Your task to perform on an android device: Open calendar and show me the fourth week of next month Image 0: 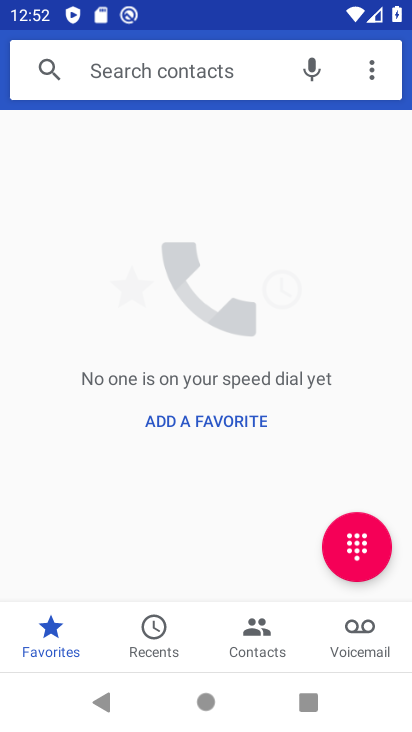
Step 0: press home button
Your task to perform on an android device: Open calendar and show me the fourth week of next month Image 1: 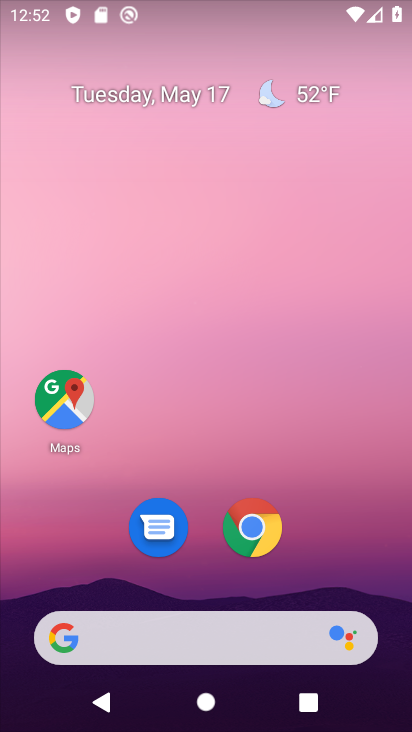
Step 1: drag from (107, 315) to (144, 145)
Your task to perform on an android device: Open calendar and show me the fourth week of next month Image 2: 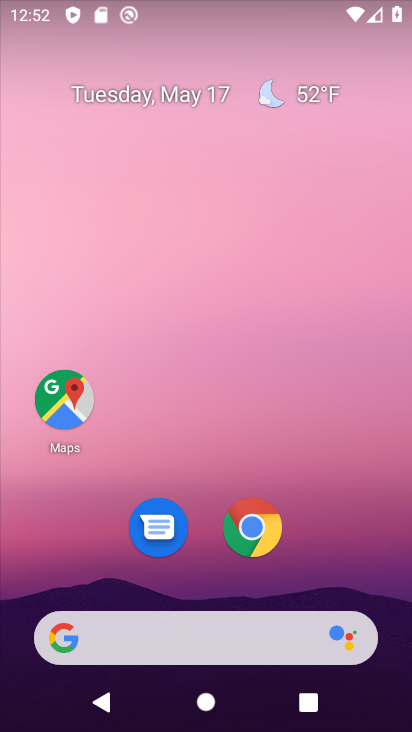
Step 2: drag from (95, 576) to (169, 66)
Your task to perform on an android device: Open calendar and show me the fourth week of next month Image 3: 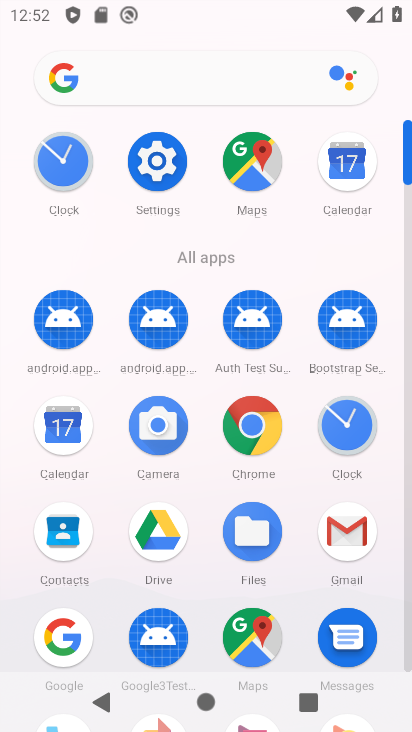
Step 3: drag from (160, 526) to (195, 299)
Your task to perform on an android device: Open calendar and show me the fourth week of next month Image 4: 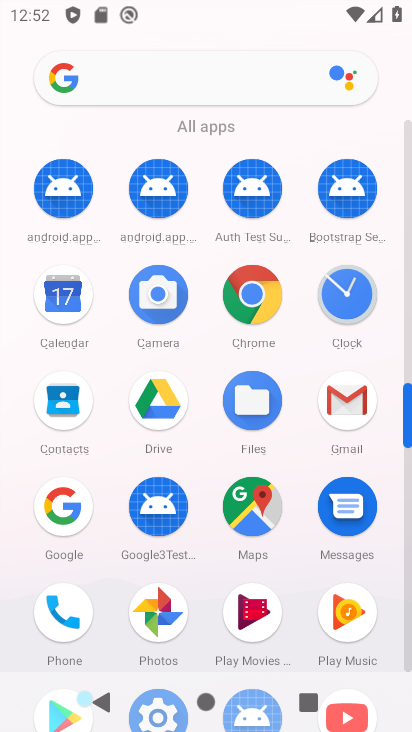
Step 4: click (73, 305)
Your task to perform on an android device: Open calendar and show me the fourth week of next month Image 5: 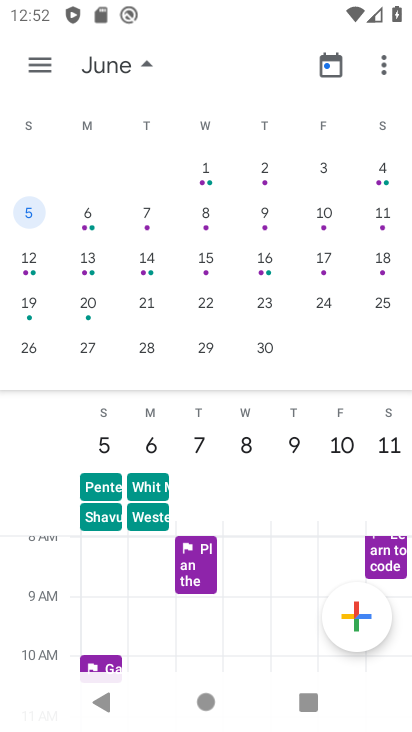
Step 5: click (25, 343)
Your task to perform on an android device: Open calendar and show me the fourth week of next month Image 6: 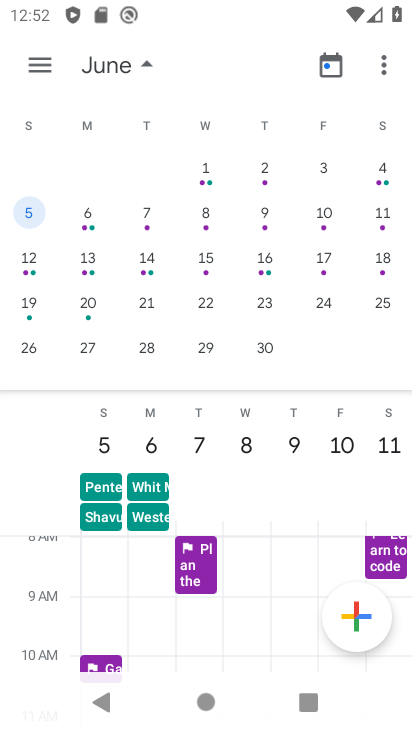
Step 6: click (32, 349)
Your task to perform on an android device: Open calendar and show me the fourth week of next month Image 7: 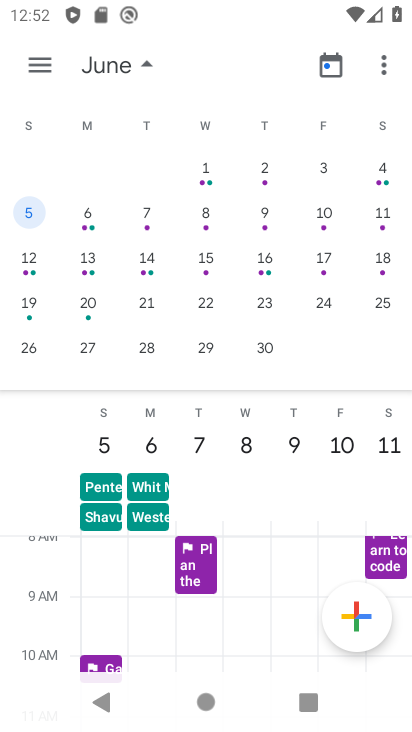
Step 7: click (34, 353)
Your task to perform on an android device: Open calendar and show me the fourth week of next month Image 8: 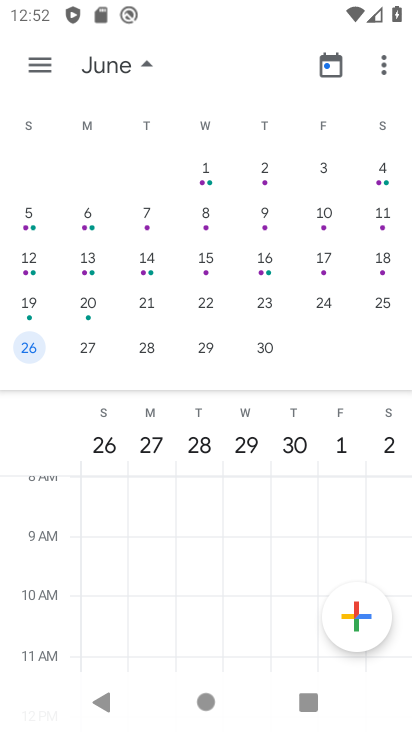
Step 8: click (145, 70)
Your task to perform on an android device: Open calendar and show me the fourth week of next month Image 9: 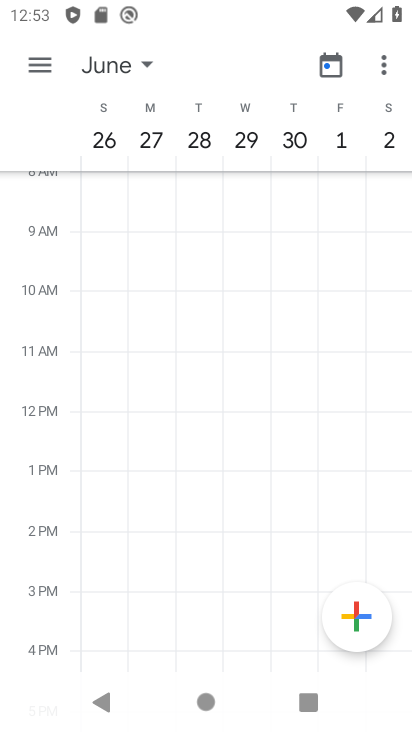
Step 9: task complete